Your task to perform on an android device: Open location settings Image 0: 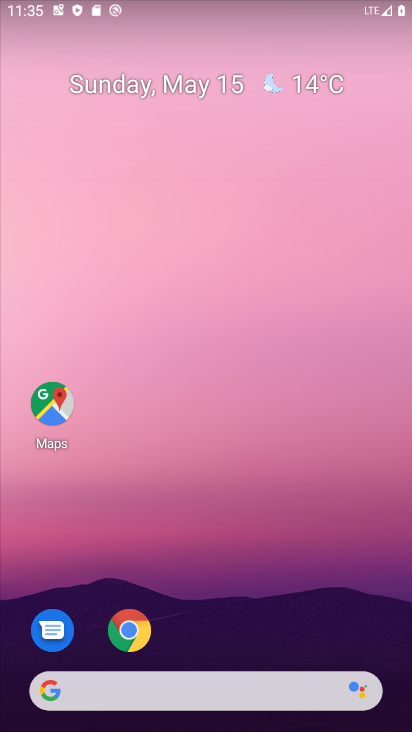
Step 0: drag from (43, 640) to (384, 59)
Your task to perform on an android device: Open location settings Image 1: 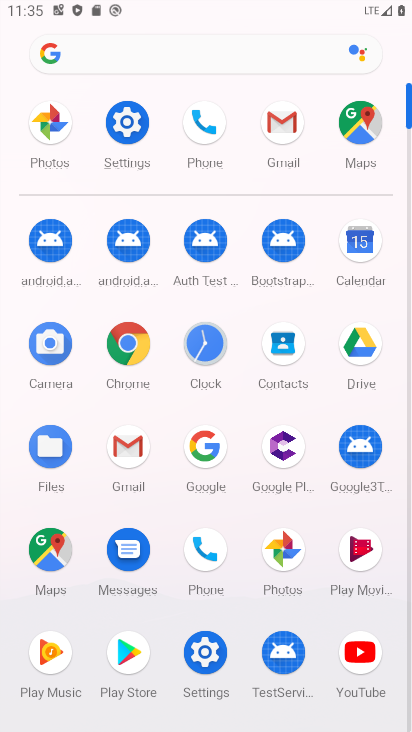
Step 1: click (131, 113)
Your task to perform on an android device: Open location settings Image 2: 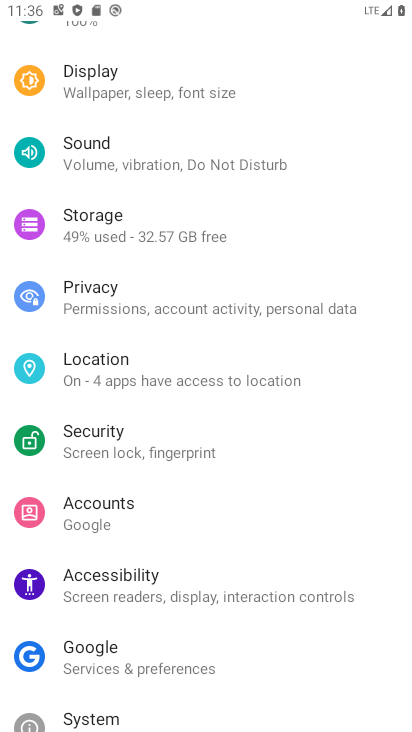
Step 2: click (123, 377)
Your task to perform on an android device: Open location settings Image 3: 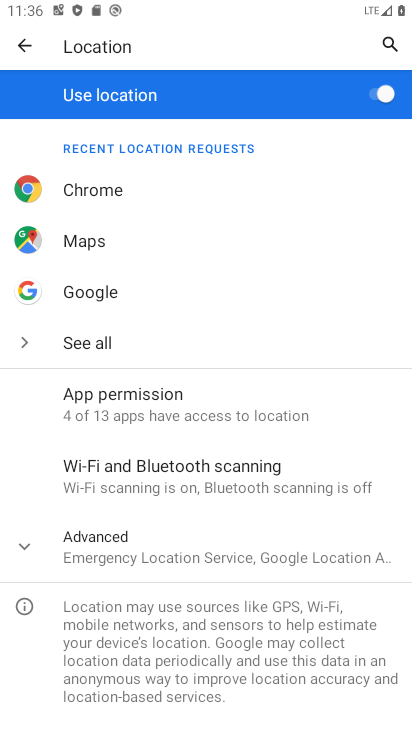
Step 3: task complete